Your task to perform on an android device: Go to eBay Image 0: 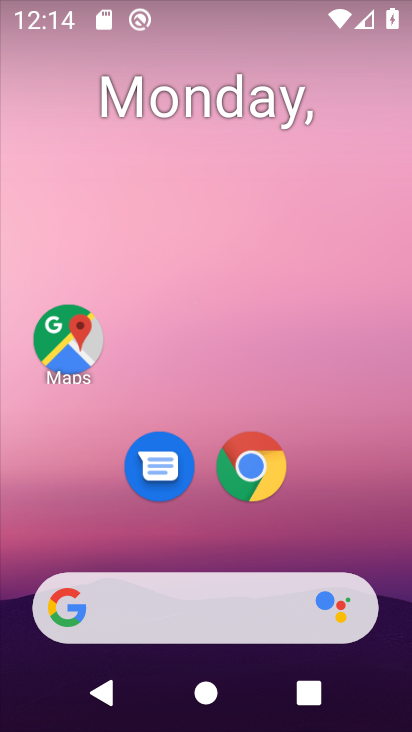
Step 0: drag from (242, 536) to (87, 5)
Your task to perform on an android device: Go to eBay Image 1: 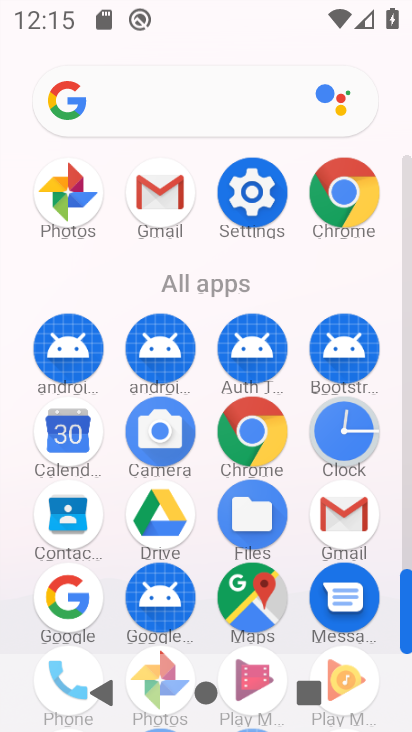
Step 1: click (331, 206)
Your task to perform on an android device: Go to eBay Image 2: 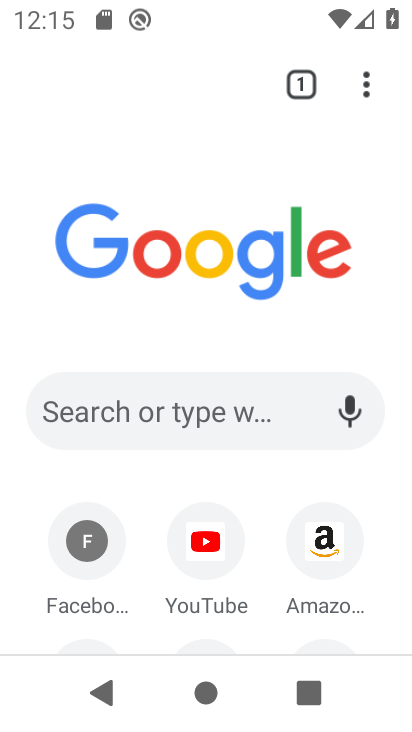
Step 2: drag from (160, 569) to (180, 299)
Your task to perform on an android device: Go to eBay Image 3: 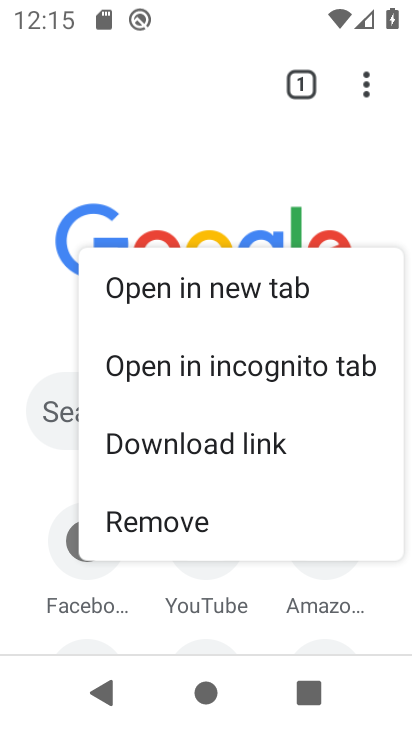
Step 3: click (155, 132)
Your task to perform on an android device: Go to eBay Image 4: 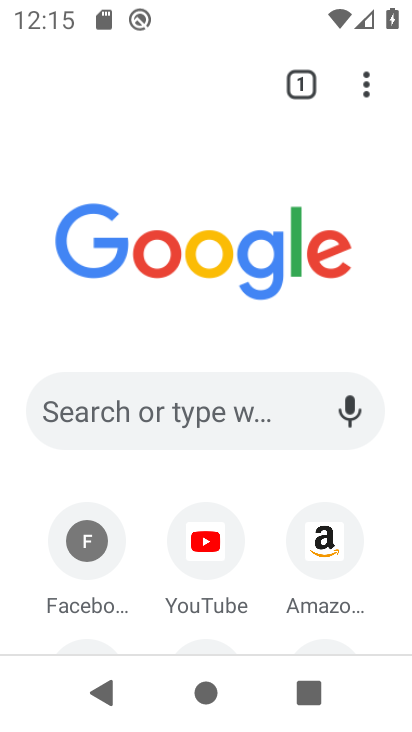
Step 4: drag from (233, 537) to (411, 16)
Your task to perform on an android device: Go to eBay Image 5: 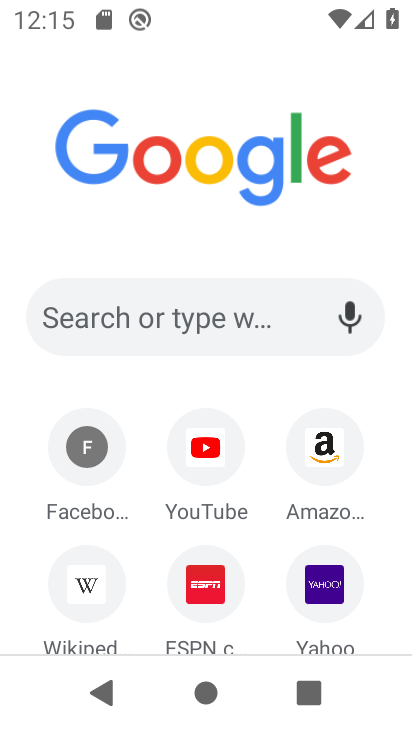
Step 5: drag from (181, 587) to (207, 208)
Your task to perform on an android device: Go to eBay Image 6: 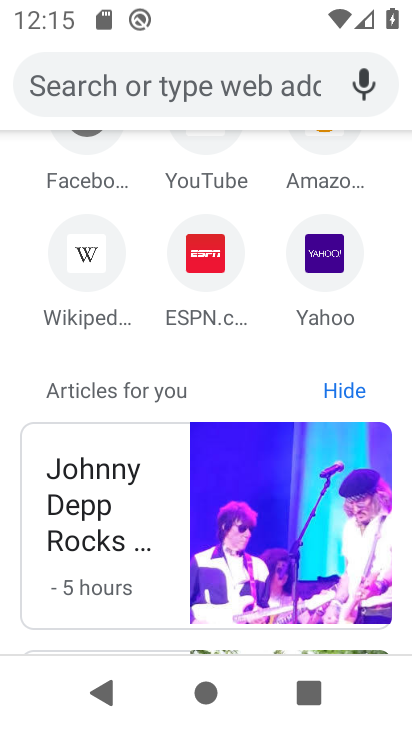
Step 6: click (156, 64)
Your task to perform on an android device: Go to eBay Image 7: 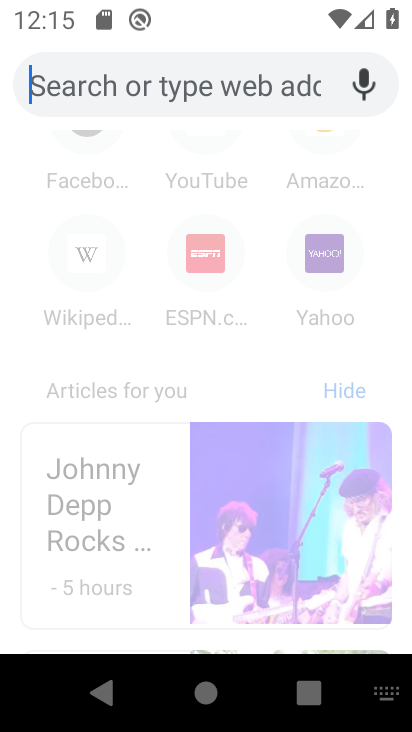
Step 7: type "www.ebay.com"
Your task to perform on an android device: Go to eBay Image 8: 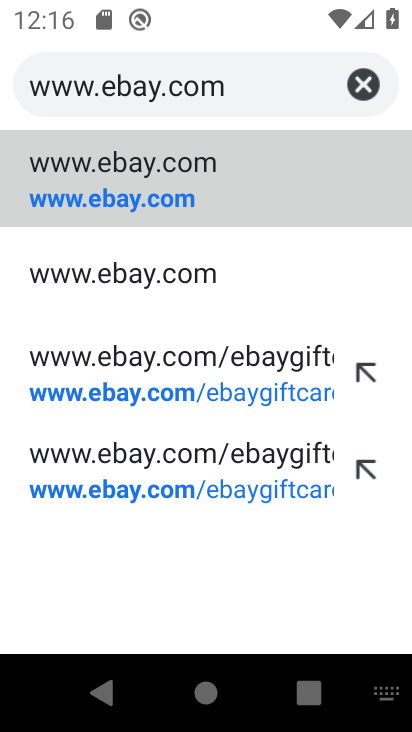
Step 8: click (98, 203)
Your task to perform on an android device: Go to eBay Image 9: 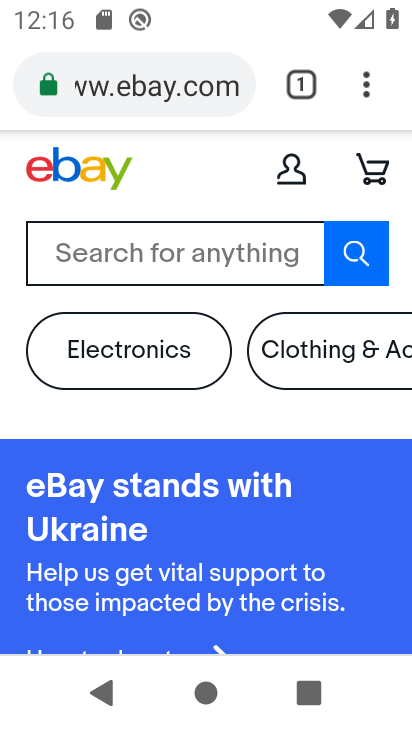
Step 9: task complete